Your task to perform on an android device: Show the shopping cart on target.com. Search for bose quietcomfort 35 on target.com, select the first entry, and add it to the cart. Image 0: 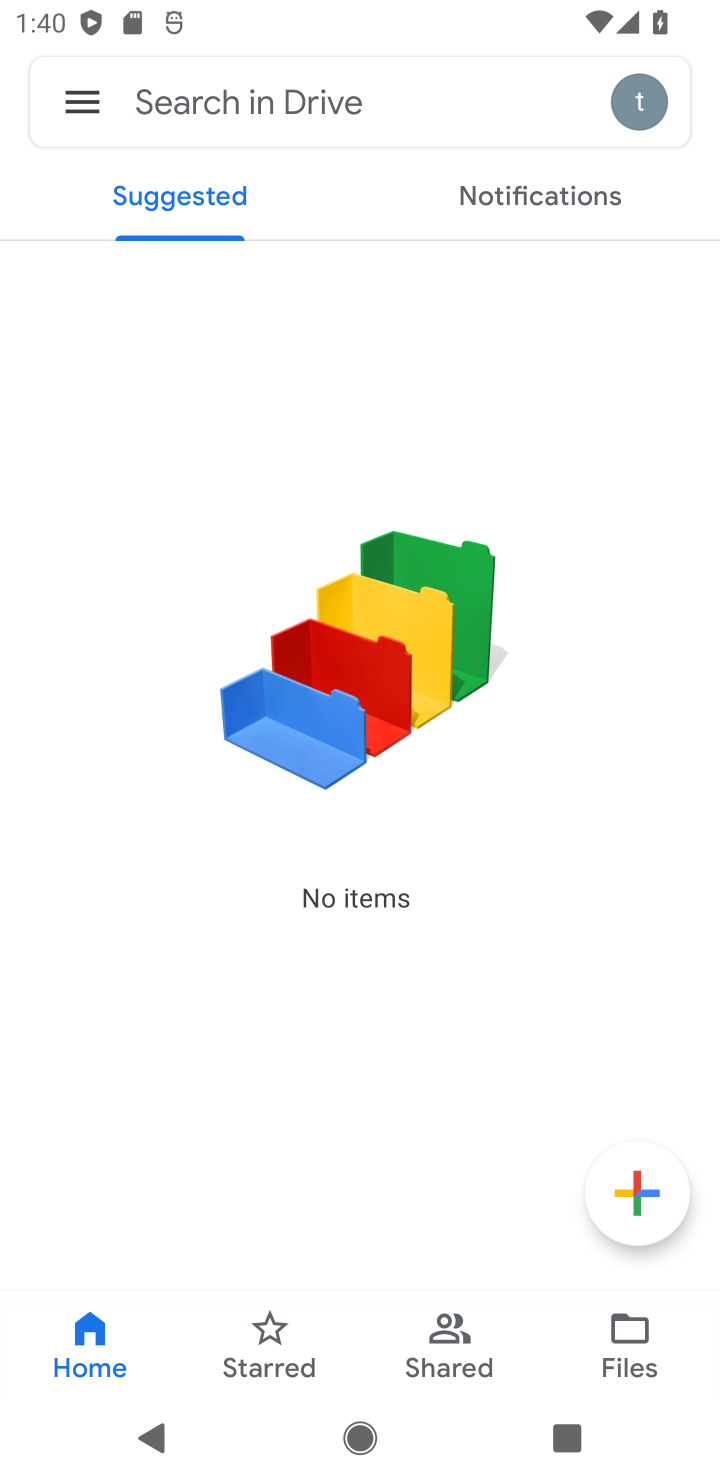
Step 0: press home button
Your task to perform on an android device: Show the shopping cart on target.com. Search for bose quietcomfort 35 on target.com, select the first entry, and add it to the cart. Image 1: 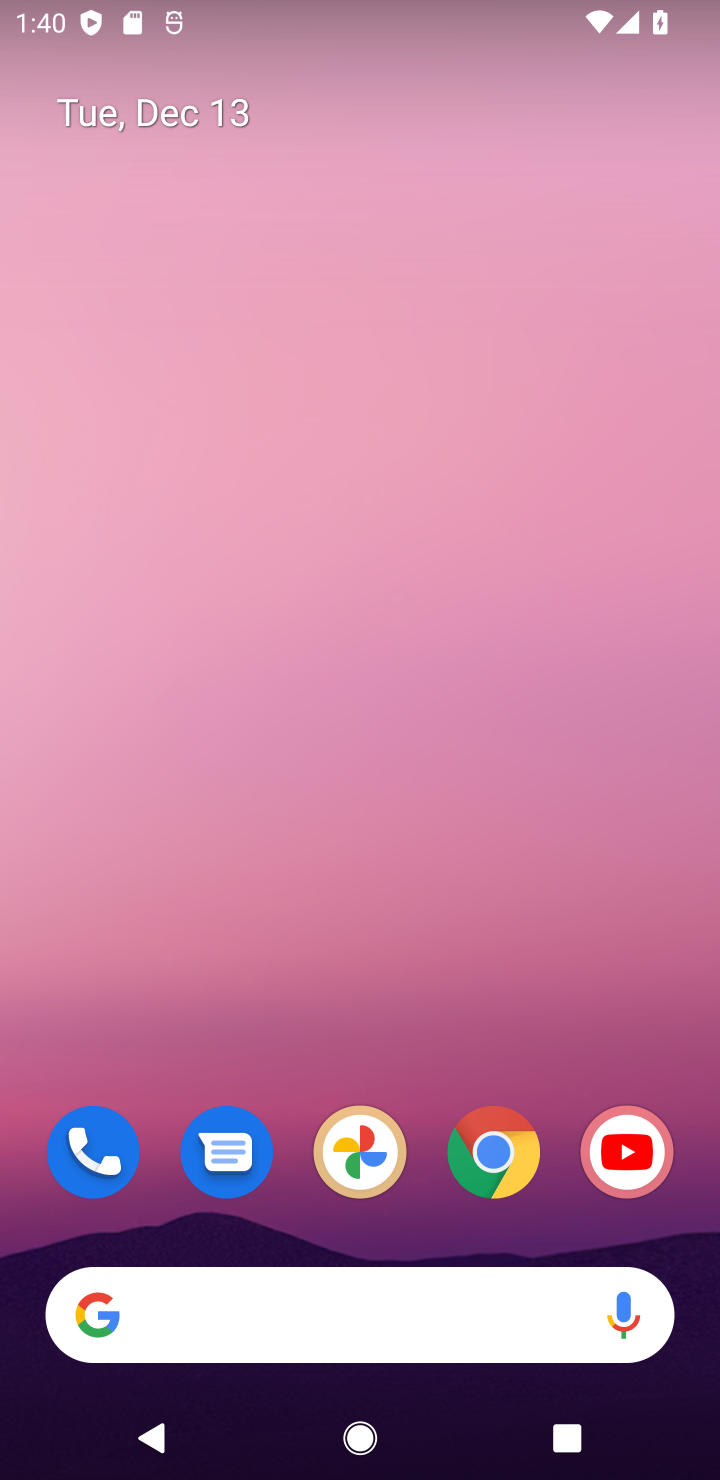
Step 1: drag from (341, 1298) to (339, 166)
Your task to perform on an android device: Show the shopping cart on target.com. Search for bose quietcomfort 35 on target.com, select the first entry, and add it to the cart. Image 2: 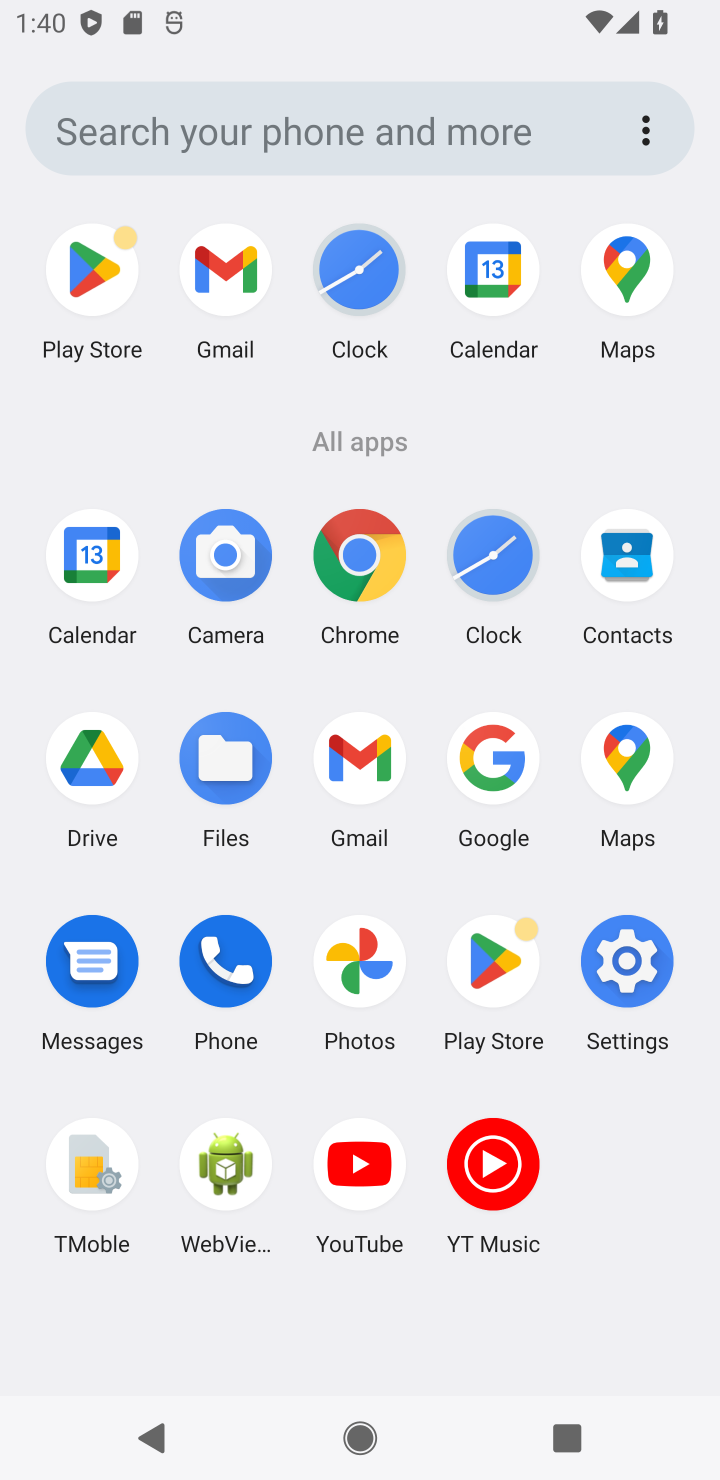
Step 2: click (484, 775)
Your task to perform on an android device: Show the shopping cart on target.com. Search for bose quietcomfort 35 on target.com, select the first entry, and add it to the cart. Image 3: 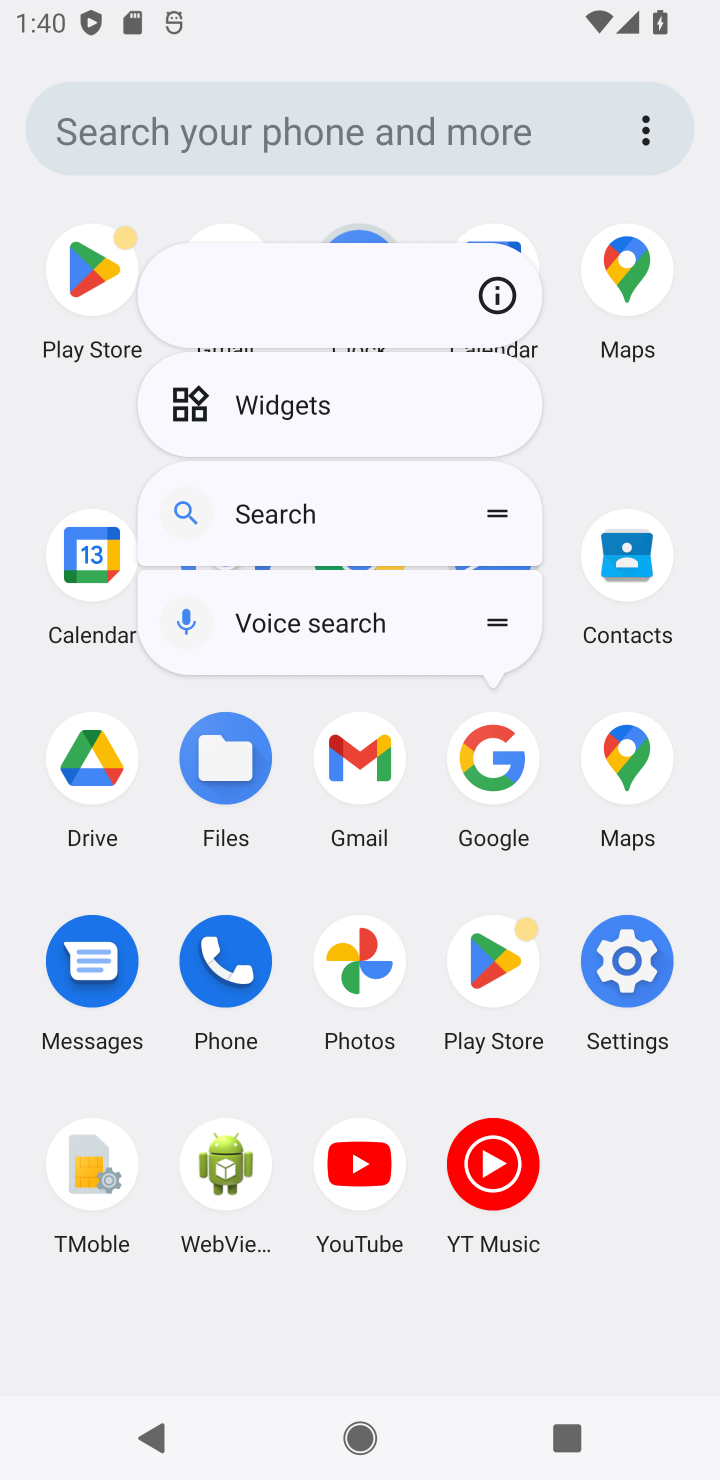
Step 3: click (489, 769)
Your task to perform on an android device: Show the shopping cart on target.com. Search for bose quietcomfort 35 on target.com, select the first entry, and add it to the cart. Image 4: 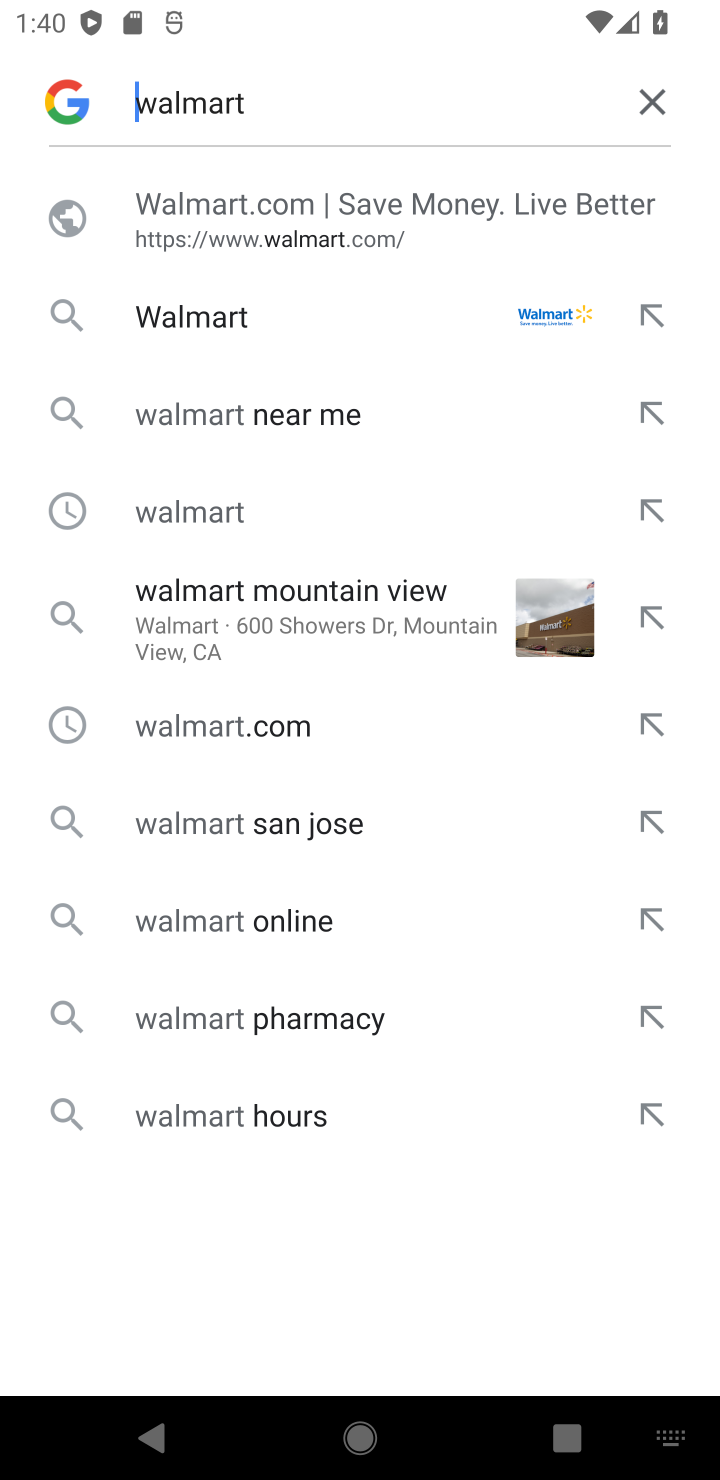
Step 4: click (636, 106)
Your task to perform on an android device: Show the shopping cart on target.com. Search for bose quietcomfort 35 on target.com, select the first entry, and add it to the cart. Image 5: 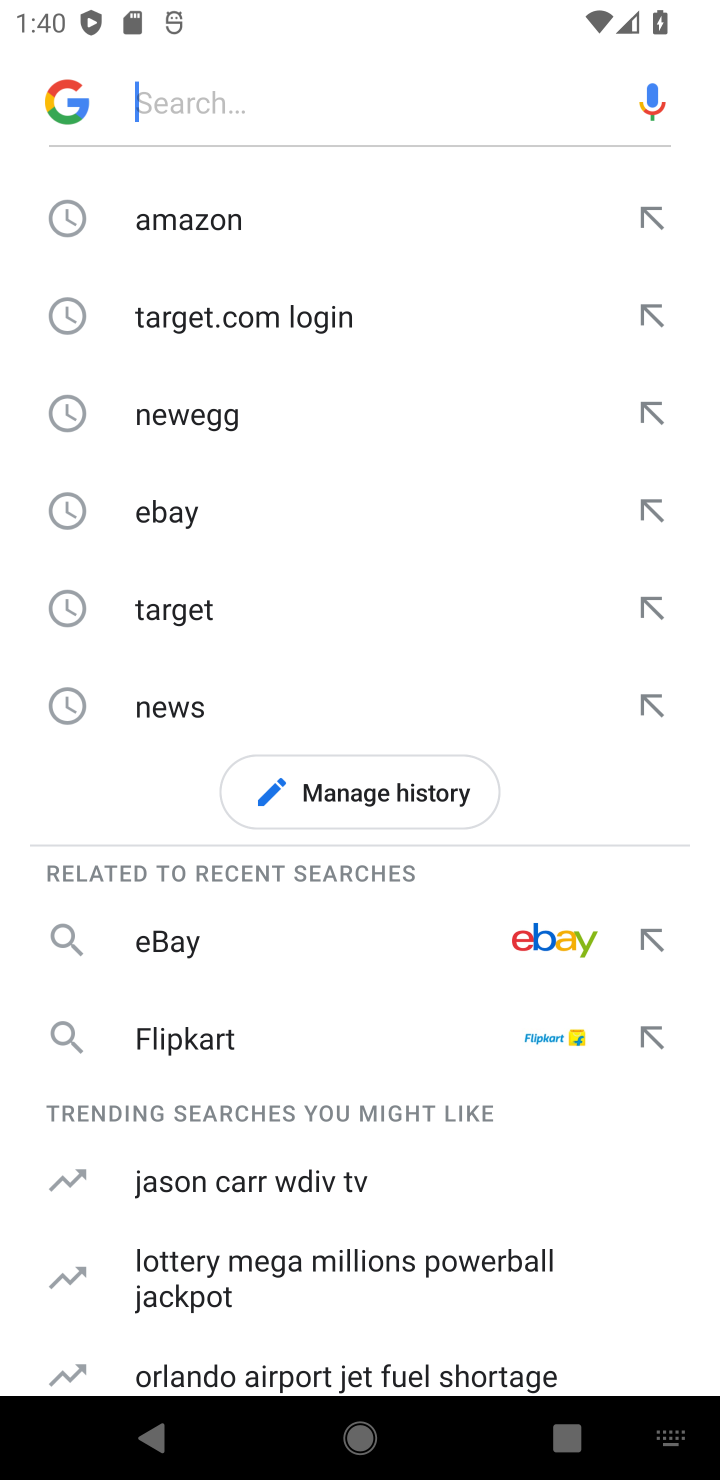
Step 5: click (165, 611)
Your task to perform on an android device: Show the shopping cart on target.com. Search for bose quietcomfort 35 on target.com, select the first entry, and add it to the cart. Image 6: 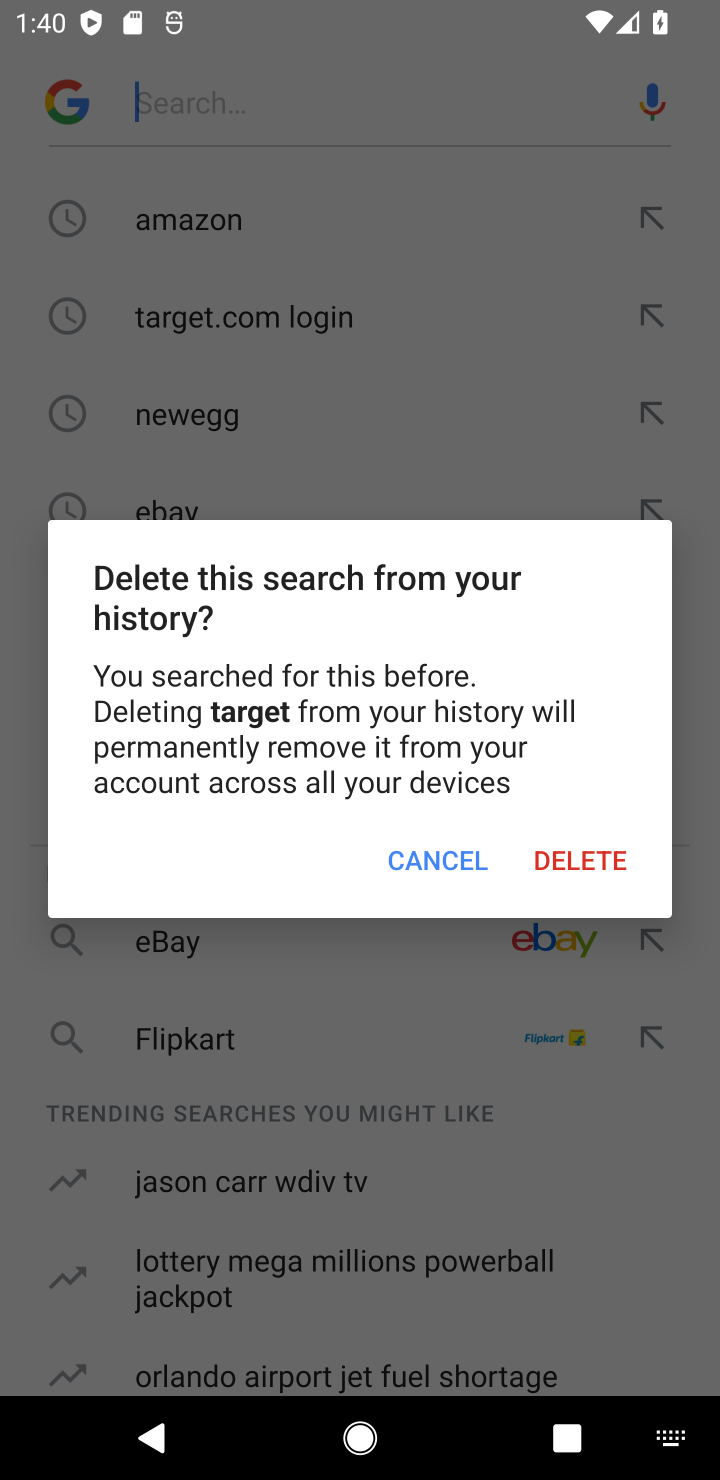
Step 6: click (412, 863)
Your task to perform on an android device: Show the shopping cart on target.com. Search for bose quietcomfort 35 on target.com, select the first entry, and add it to the cart. Image 7: 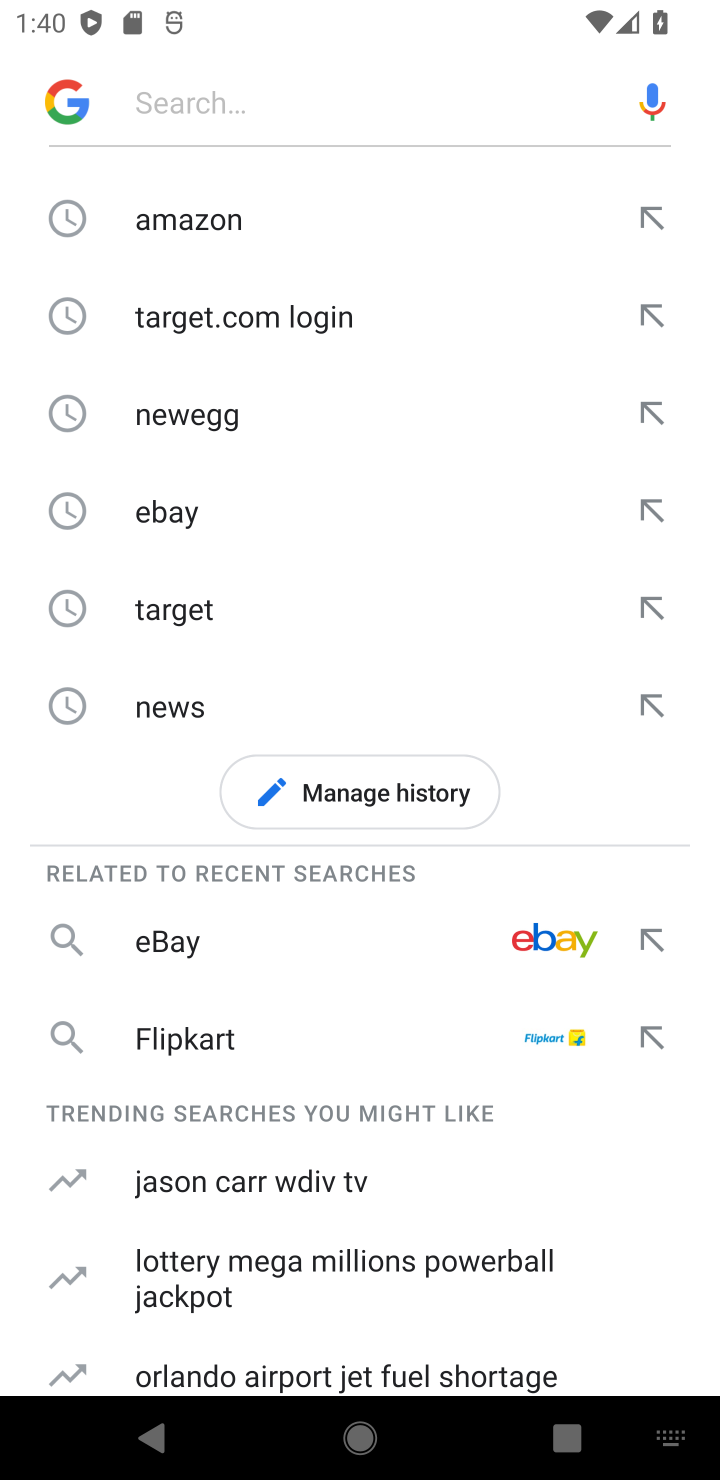
Step 7: click (191, 624)
Your task to perform on an android device: Show the shopping cart on target.com. Search for bose quietcomfort 35 on target.com, select the first entry, and add it to the cart. Image 8: 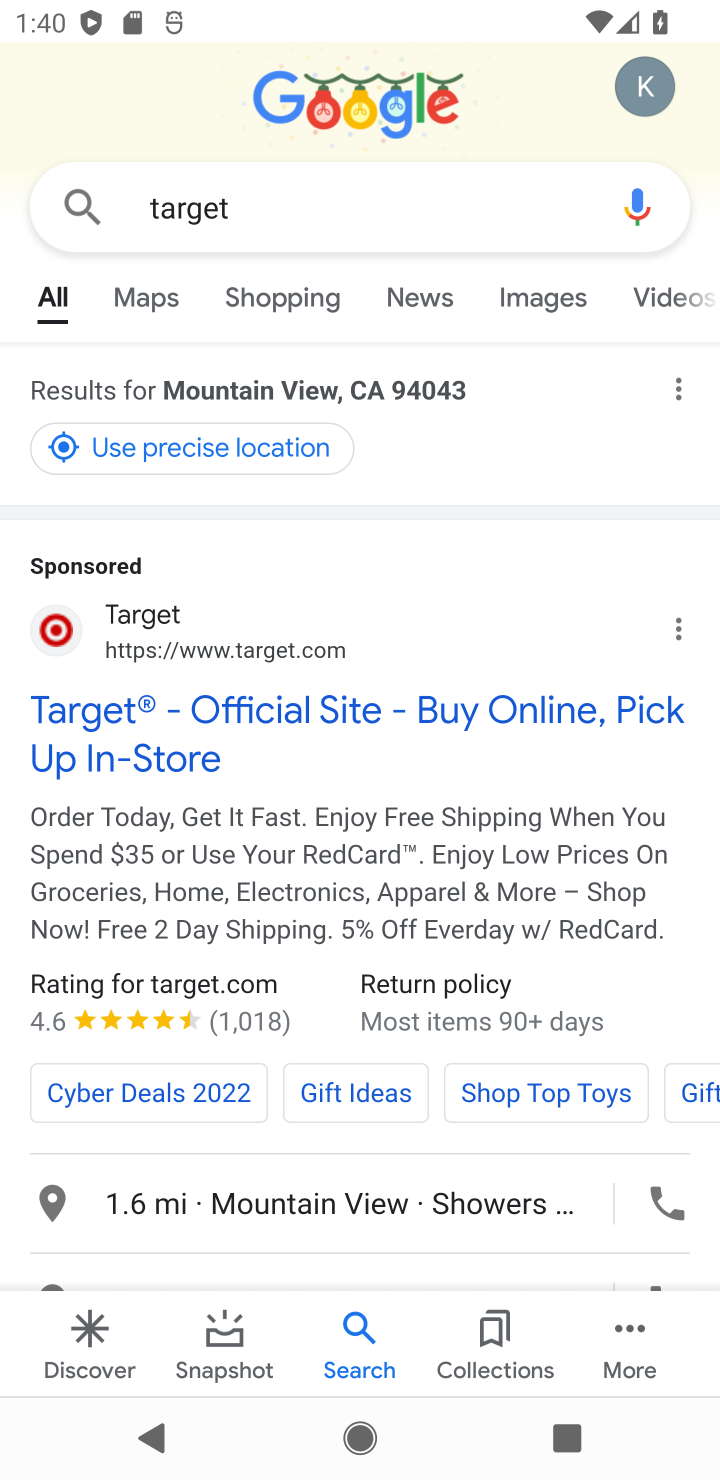
Step 8: click (210, 706)
Your task to perform on an android device: Show the shopping cart on target.com. Search for bose quietcomfort 35 on target.com, select the first entry, and add it to the cart. Image 9: 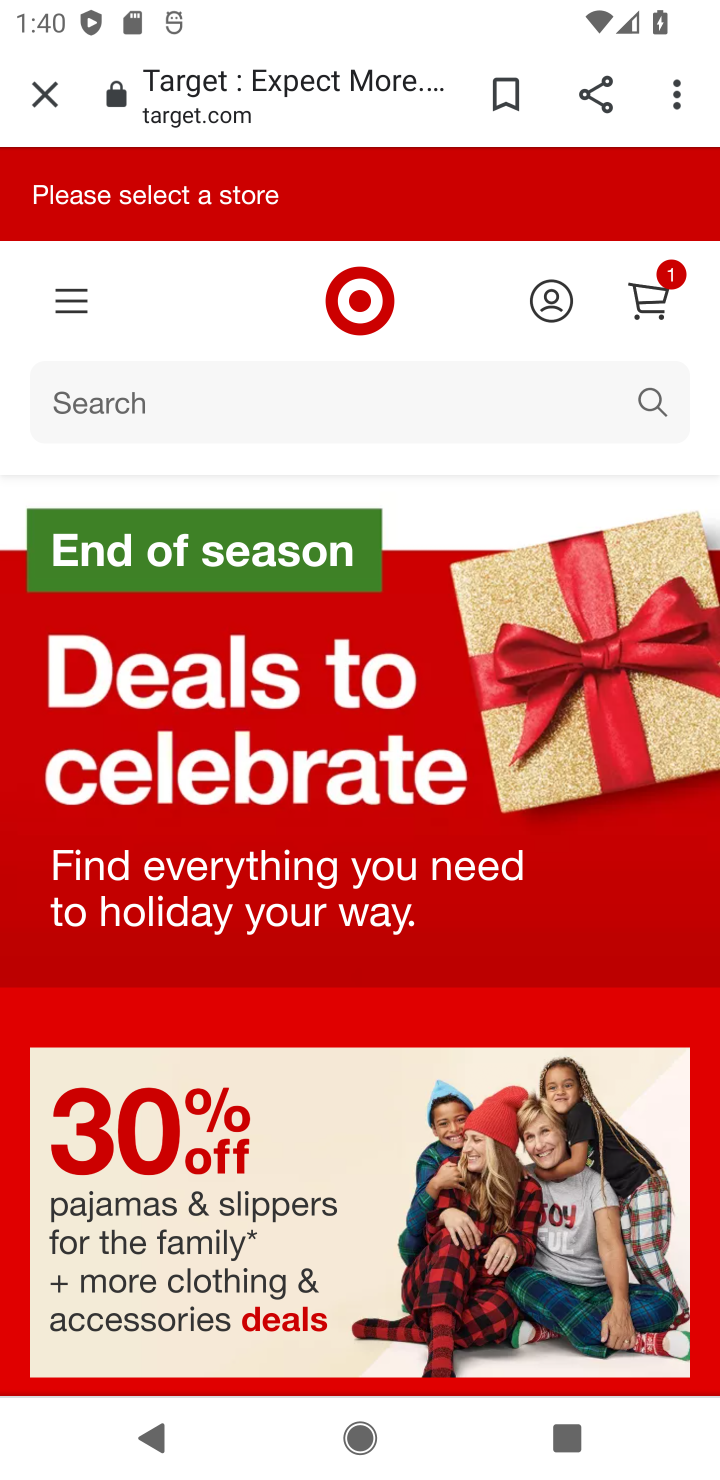
Step 9: click (218, 412)
Your task to perform on an android device: Show the shopping cart on target.com. Search for bose quietcomfort 35 on target.com, select the first entry, and add it to the cart. Image 10: 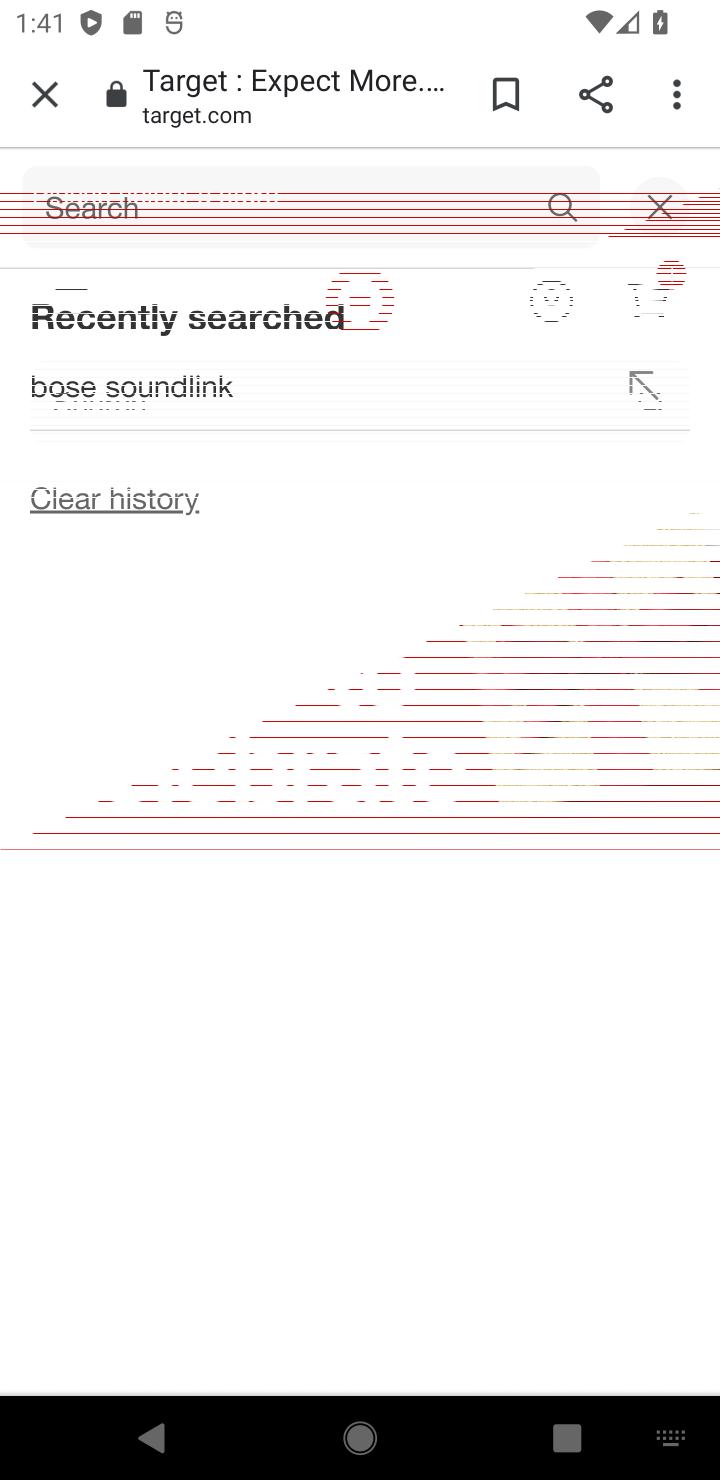
Step 10: type "bose quietcomfort 35"
Your task to perform on an android device: Show the shopping cart on target.com. Search for bose quietcomfort 35 on target.com, select the first entry, and add it to the cart. Image 11: 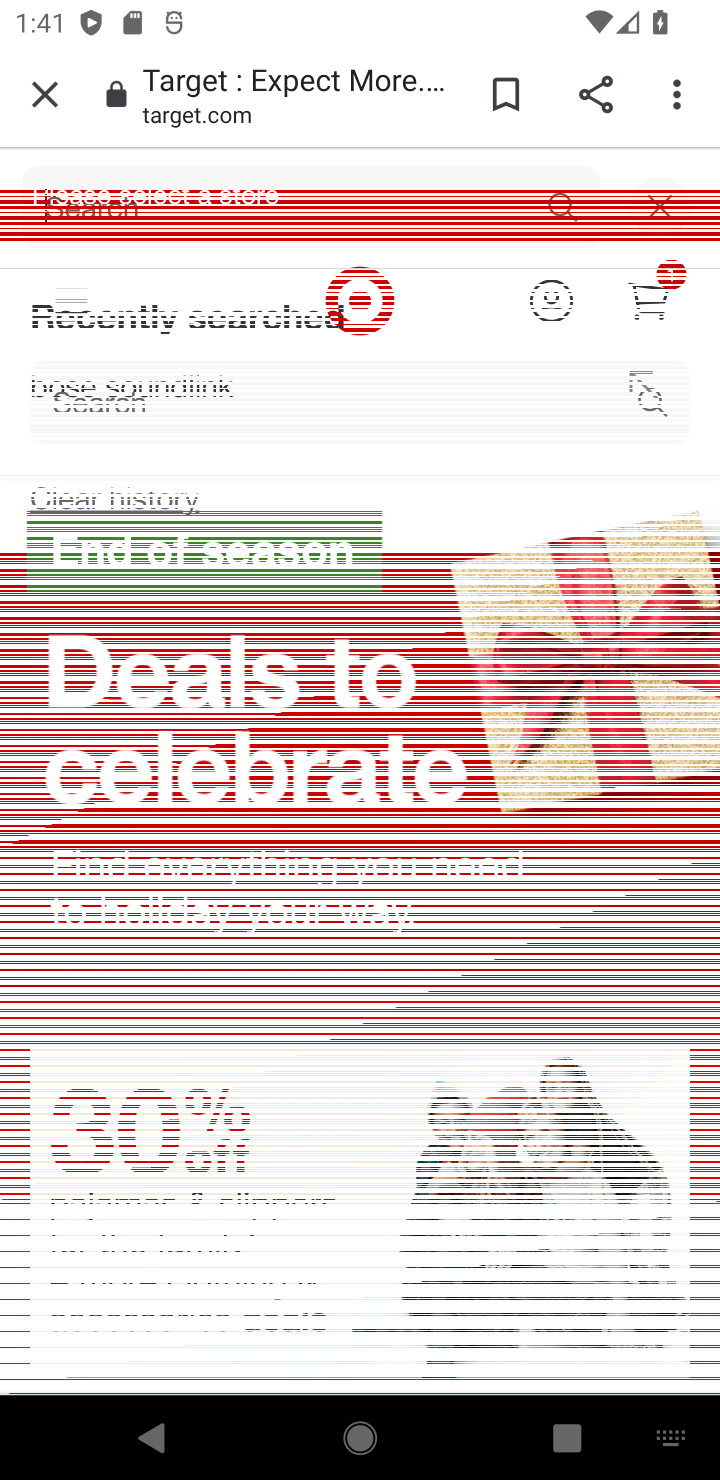
Step 11: click (562, 205)
Your task to perform on an android device: Show the shopping cart on target.com. Search for bose quietcomfort 35 on target.com, select the first entry, and add it to the cart. Image 12: 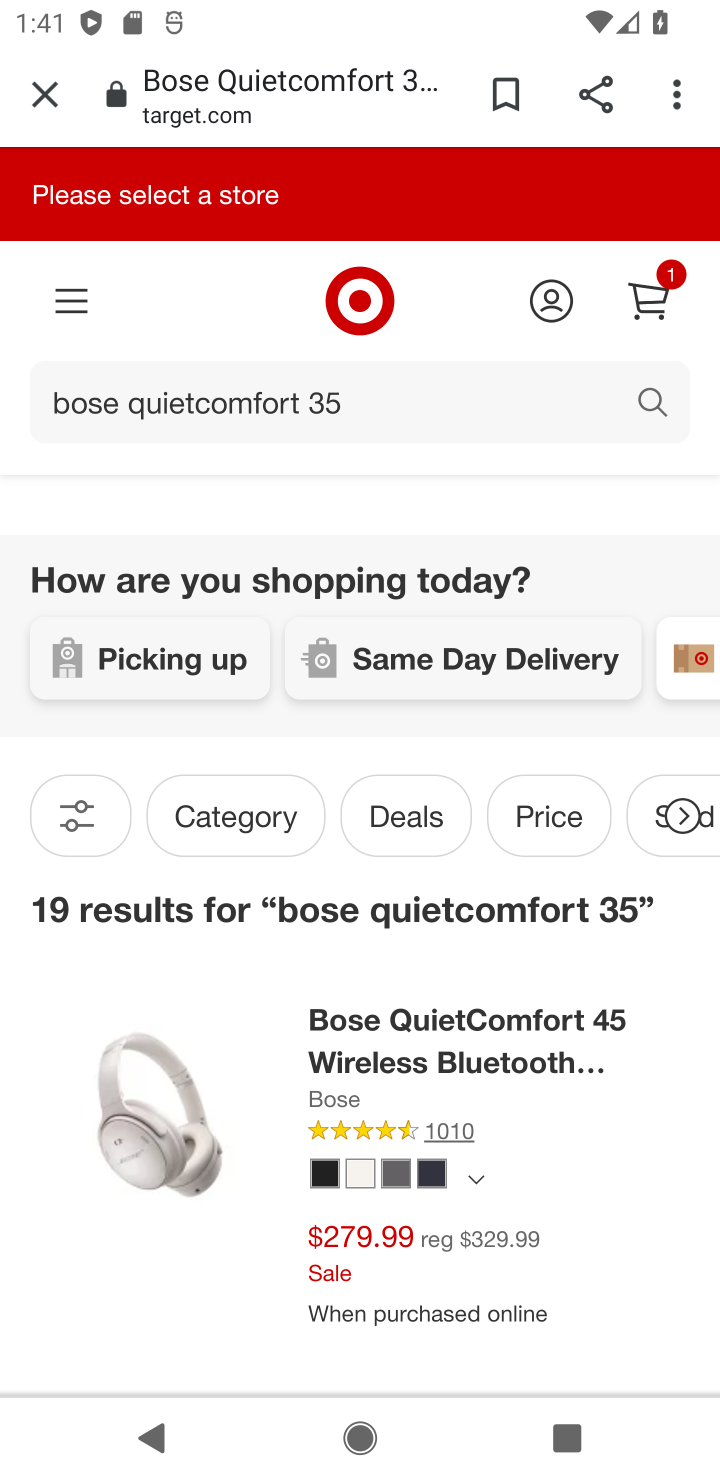
Step 12: drag from (385, 874) to (360, 677)
Your task to perform on an android device: Show the shopping cart on target.com. Search for bose quietcomfort 35 on target.com, select the first entry, and add it to the cart. Image 13: 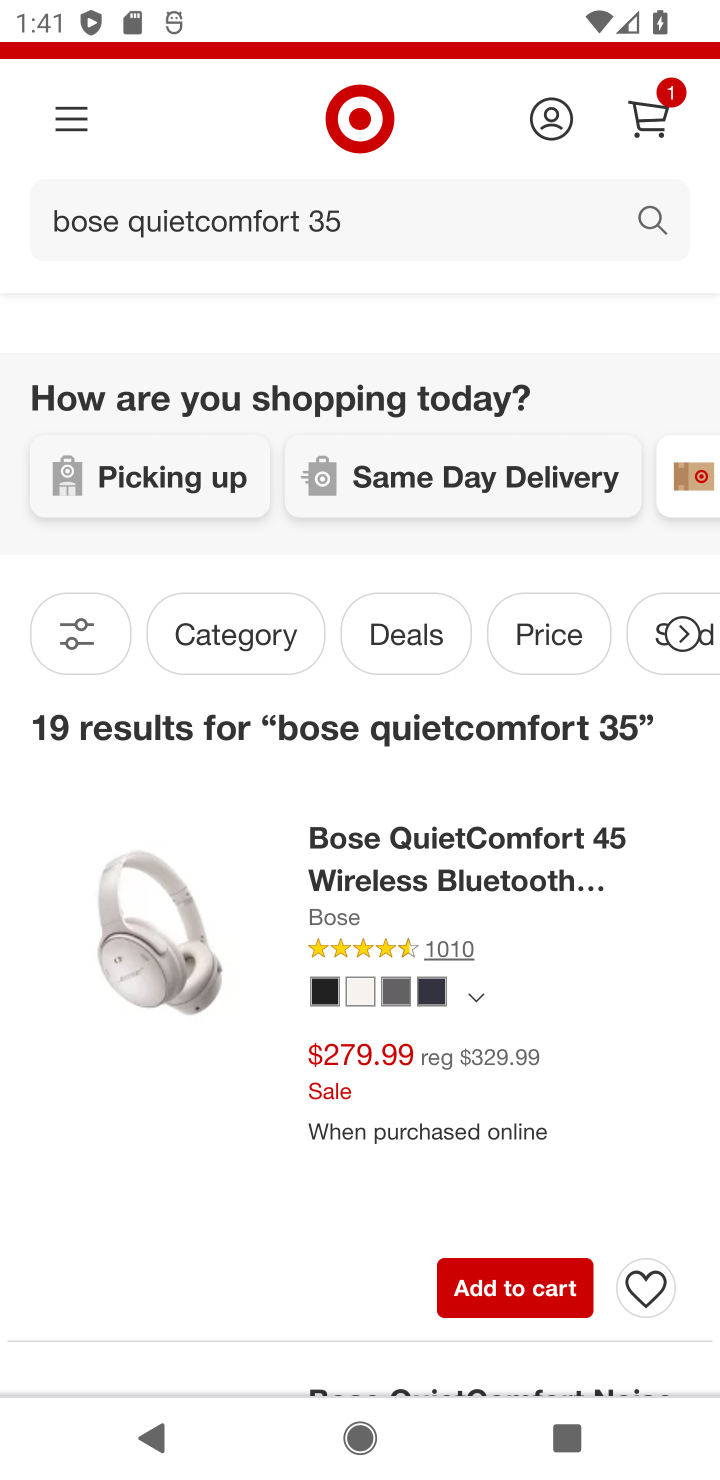
Step 13: click (508, 1289)
Your task to perform on an android device: Show the shopping cart on target.com. Search for bose quietcomfort 35 on target.com, select the first entry, and add it to the cart. Image 14: 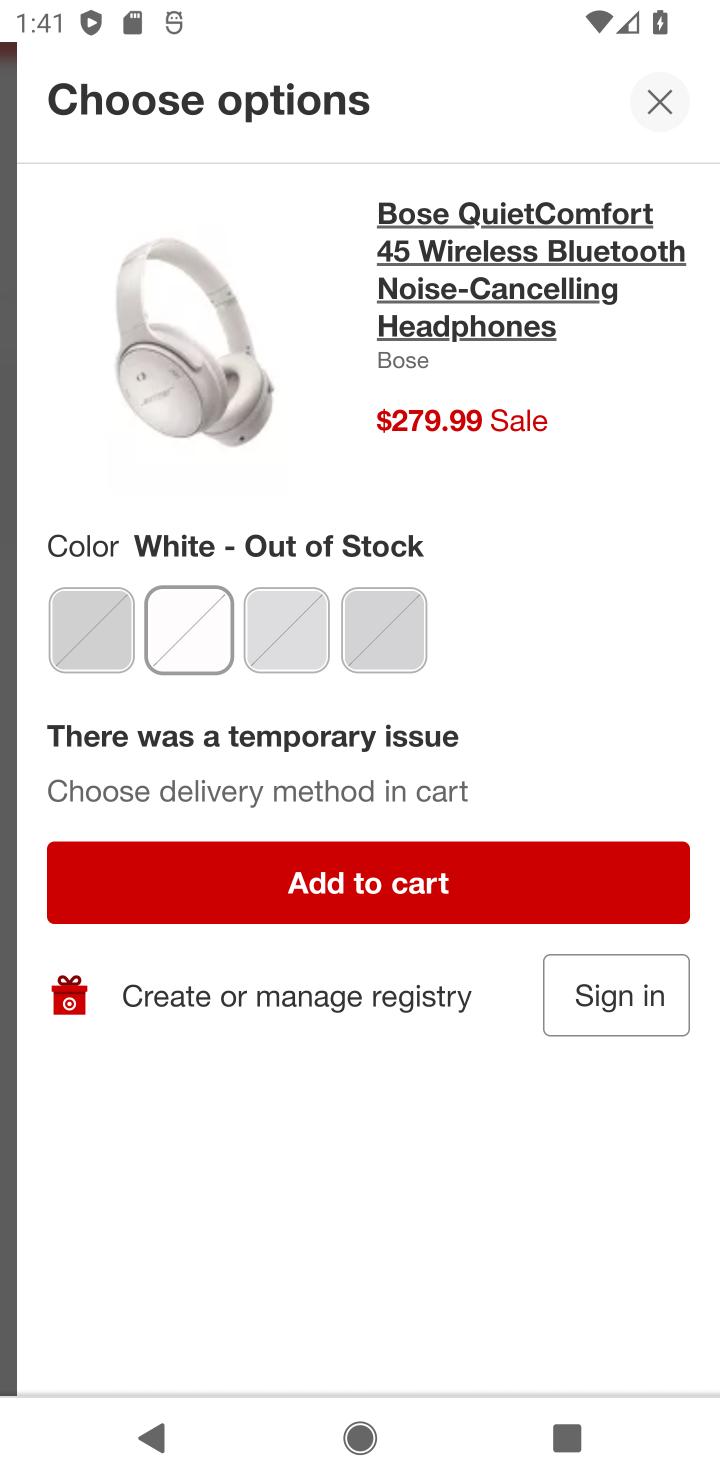
Step 14: click (358, 881)
Your task to perform on an android device: Show the shopping cart on target.com. Search for bose quietcomfort 35 on target.com, select the first entry, and add it to the cart. Image 15: 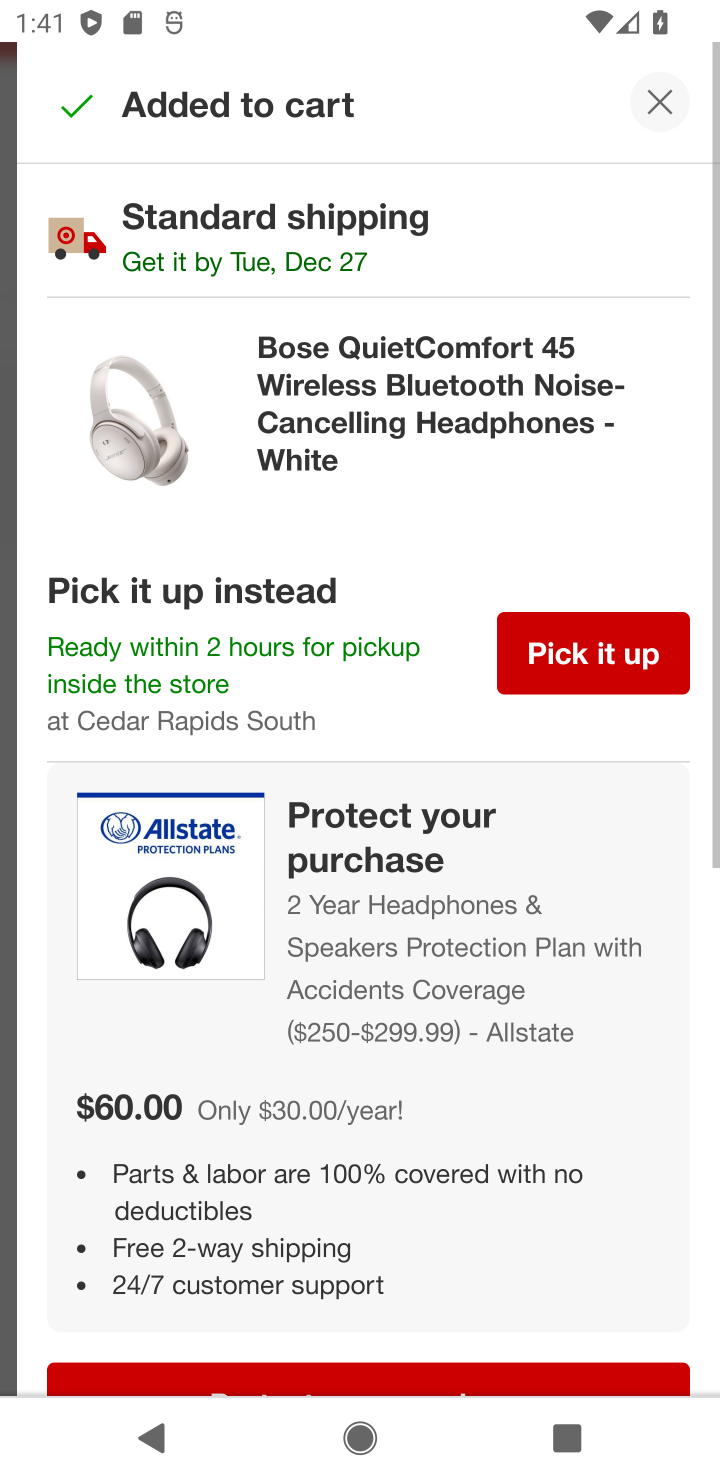
Step 15: drag from (350, 1273) to (354, 383)
Your task to perform on an android device: Show the shopping cart on target.com. Search for bose quietcomfort 35 on target.com, select the first entry, and add it to the cart. Image 16: 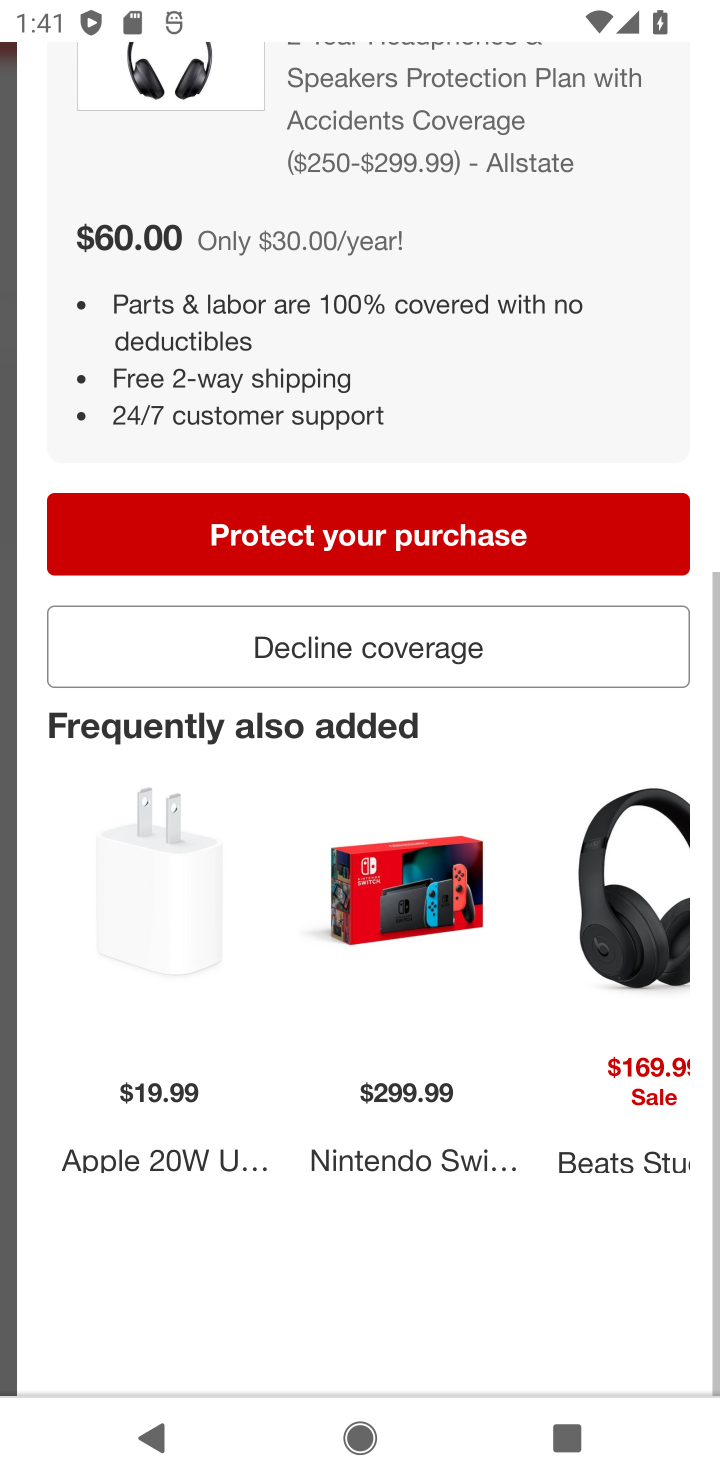
Step 16: drag from (279, 301) to (313, 1239)
Your task to perform on an android device: Show the shopping cart on target.com. Search for bose quietcomfort 35 on target.com, select the first entry, and add it to the cart. Image 17: 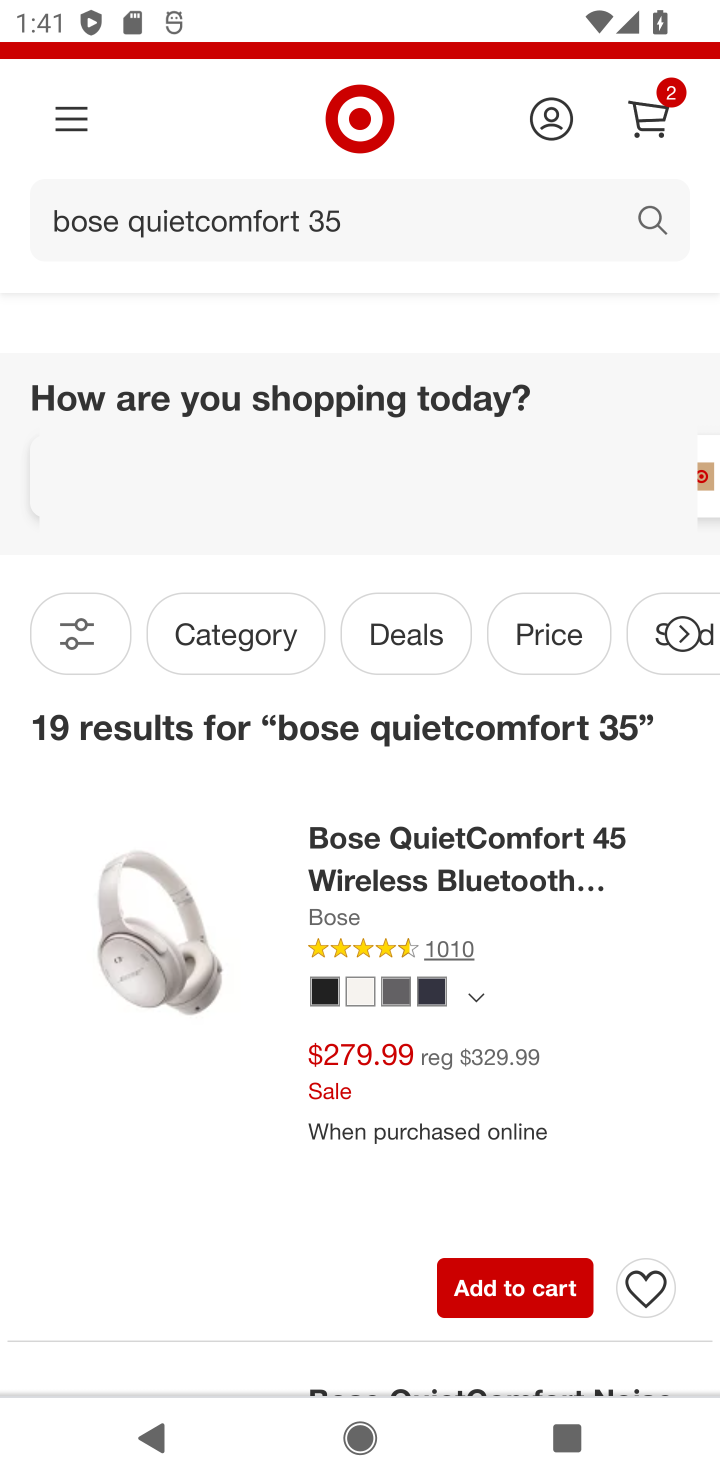
Step 17: drag from (257, 222) to (377, 1230)
Your task to perform on an android device: Show the shopping cart on target.com. Search for bose quietcomfort 35 on target.com, select the first entry, and add it to the cart. Image 18: 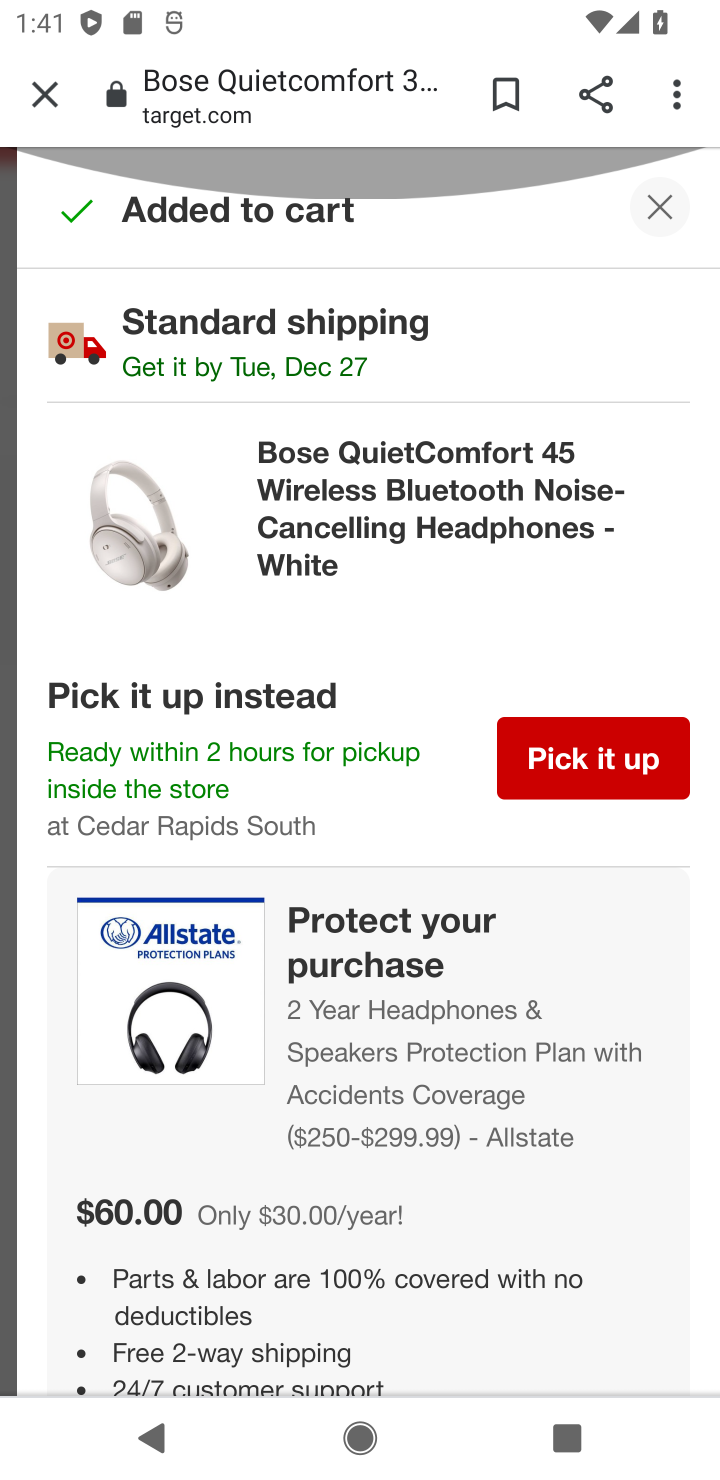
Step 18: drag from (129, 254) to (254, 1058)
Your task to perform on an android device: Show the shopping cart on target.com. Search for bose quietcomfort 35 on target.com, select the first entry, and add it to the cart. Image 19: 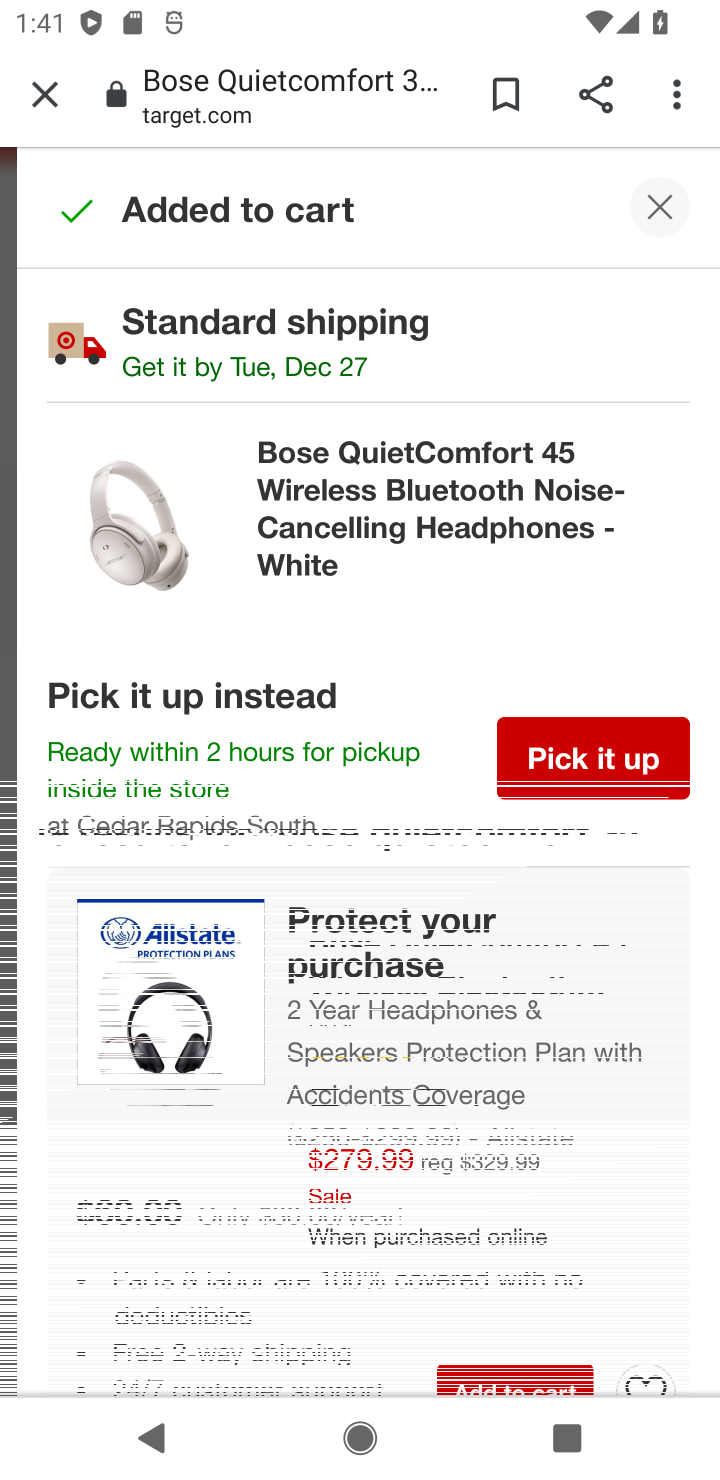
Step 19: click (659, 201)
Your task to perform on an android device: Show the shopping cart on target.com. Search for bose quietcomfort 35 on target.com, select the first entry, and add it to the cart. Image 20: 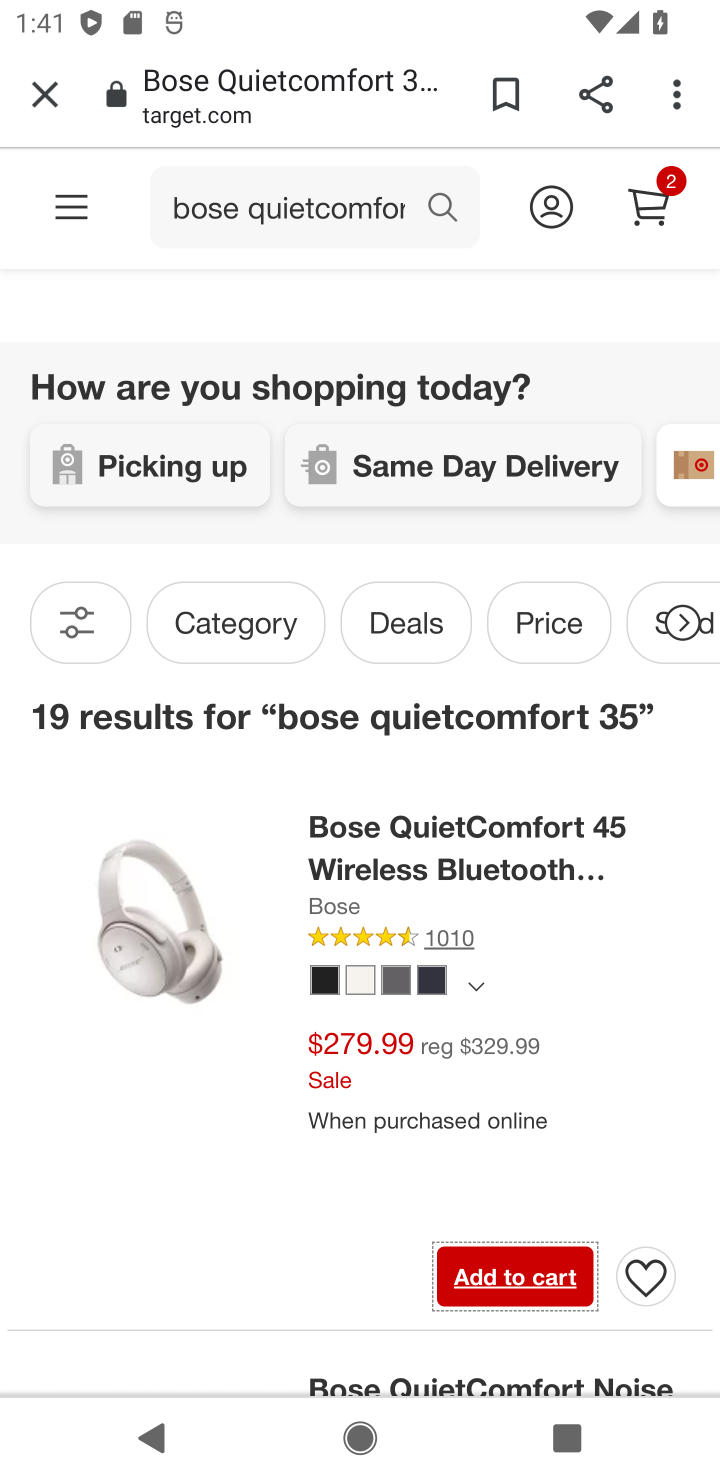
Step 20: click (637, 182)
Your task to perform on an android device: Show the shopping cart on target.com. Search for bose quietcomfort 35 on target.com, select the first entry, and add it to the cart. Image 21: 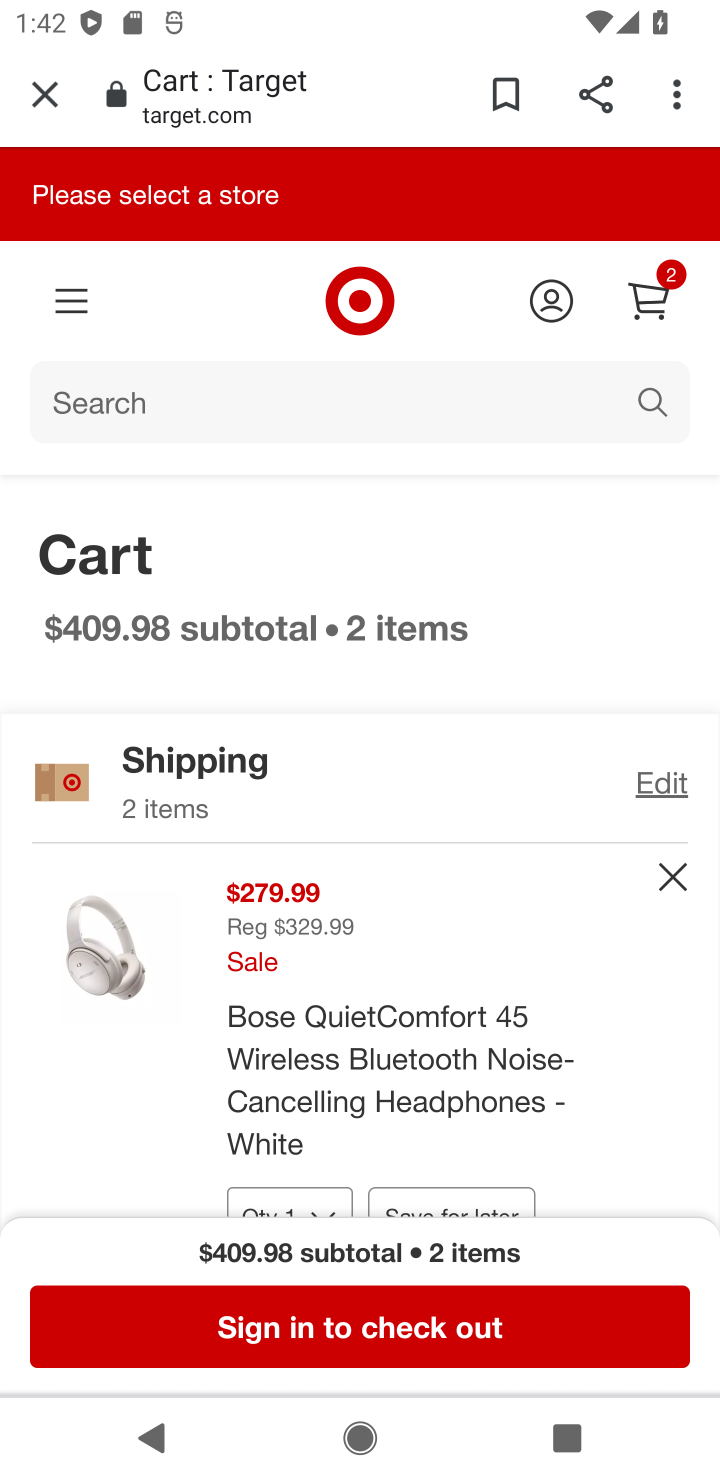
Step 21: click (357, 1322)
Your task to perform on an android device: Show the shopping cart on target.com. Search for bose quietcomfort 35 on target.com, select the first entry, and add it to the cart. Image 22: 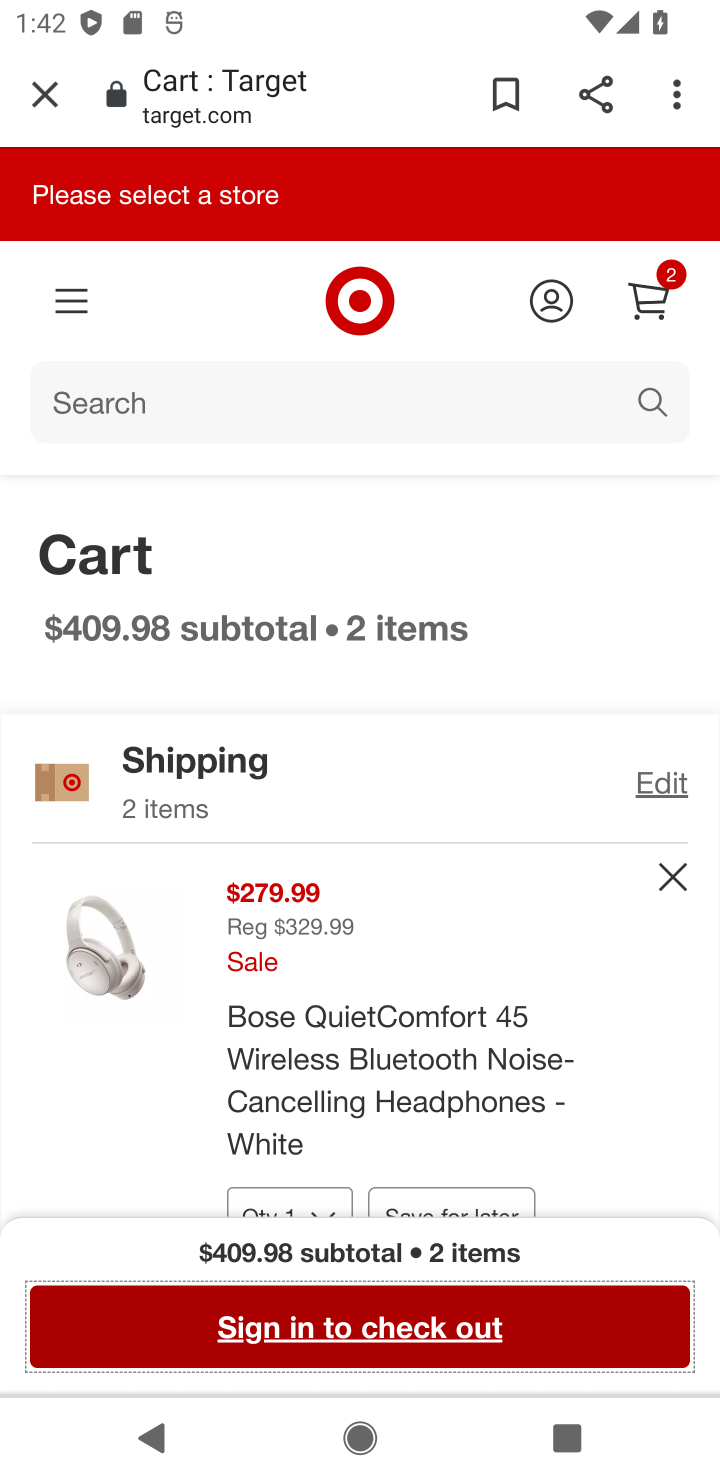
Step 22: task complete